Your task to perform on an android device: turn off wifi Image 0: 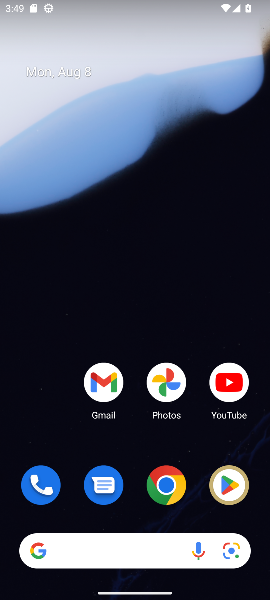
Step 0: drag from (145, 590) to (98, 317)
Your task to perform on an android device: turn off wifi Image 1: 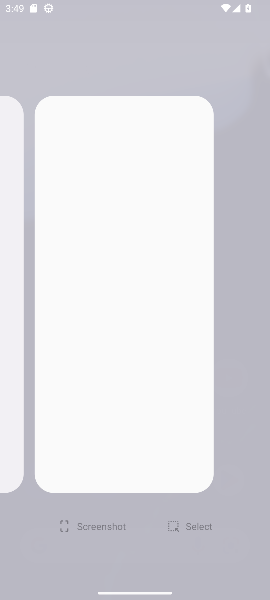
Step 1: drag from (157, 492) to (94, 205)
Your task to perform on an android device: turn off wifi Image 2: 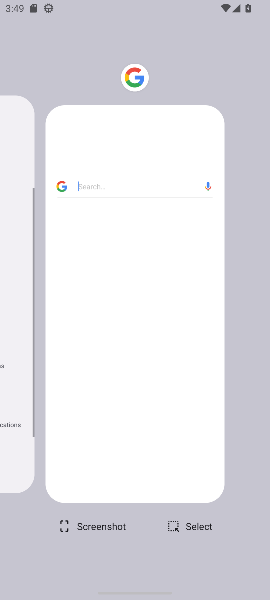
Step 2: drag from (203, 489) to (191, 357)
Your task to perform on an android device: turn off wifi Image 3: 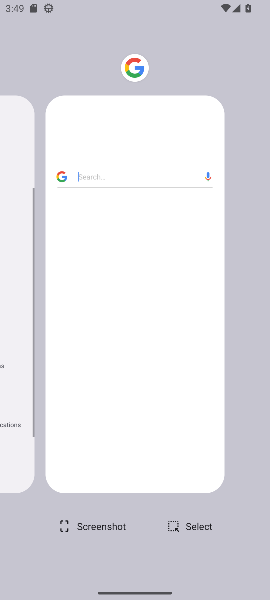
Step 3: press back button
Your task to perform on an android device: turn off wifi Image 4: 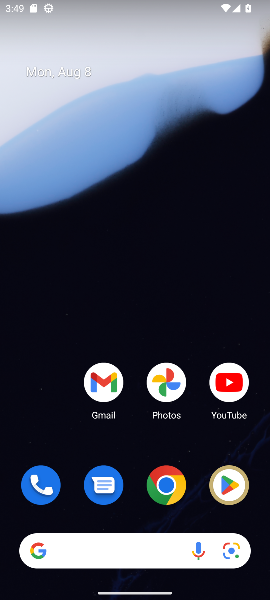
Step 4: drag from (238, 519) to (129, 161)
Your task to perform on an android device: turn off wifi Image 5: 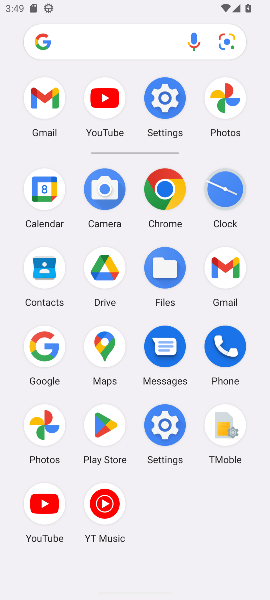
Step 5: drag from (209, 500) to (149, 116)
Your task to perform on an android device: turn off wifi Image 6: 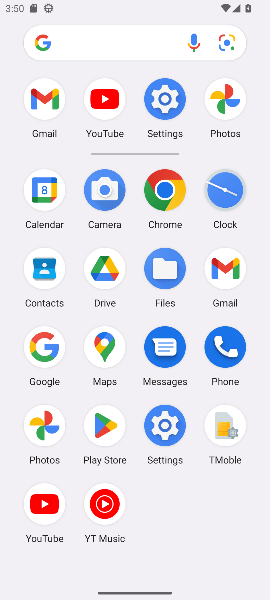
Step 6: click (148, 425)
Your task to perform on an android device: turn off wifi Image 7: 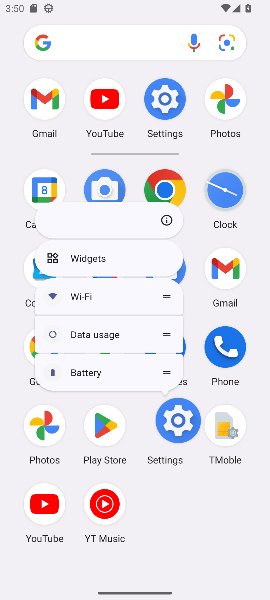
Step 7: click (161, 420)
Your task to perform on an android device: turn off wifi Image 8: 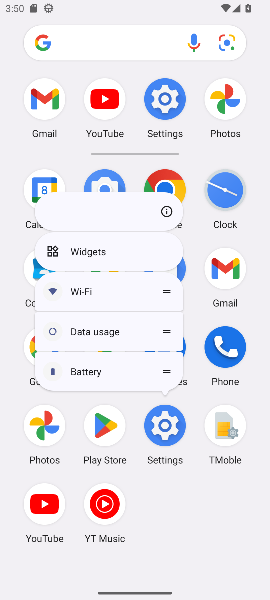
Step 8: click (143, 429)
Your task to perform on an android device: turn off wifi Image 9: 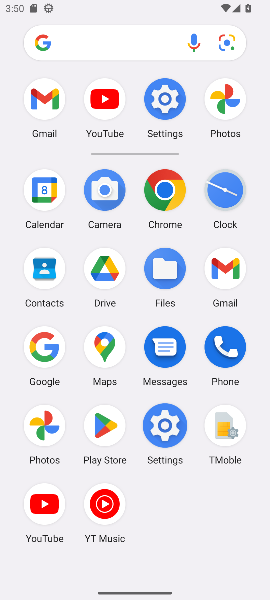
Step 9: click (152, 430)
Your task to perform on an android device: turn off wifi Image 10: 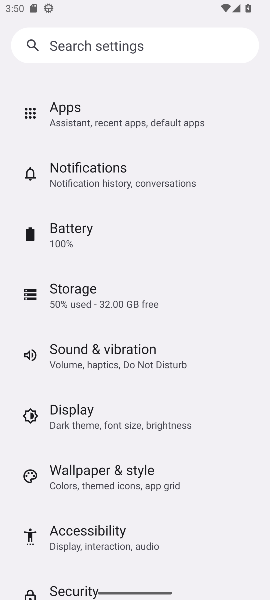
Step 10: drag from (61, 106) to (60, 444)
Your task to perform on an android device: turn off wifi Image 11: 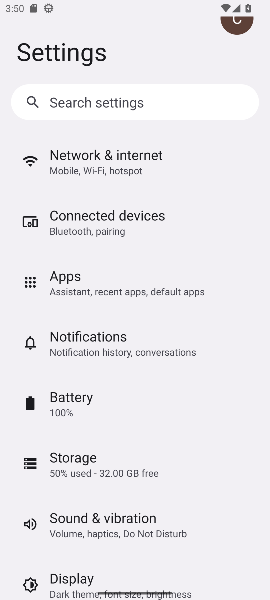
Step 11: drag from (55, 120) to (100, 497)
Your task to perform on an android device: turn off wifi Image 12: 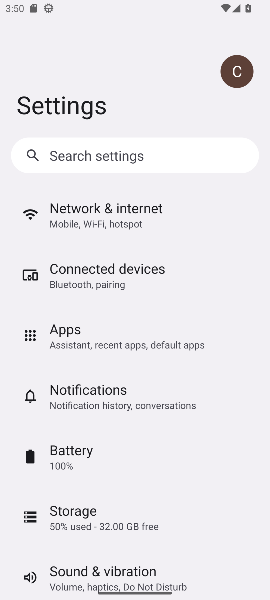
Step 12: click (92, 223)
Your task to perform on an android device: turn off wifi Image 13: 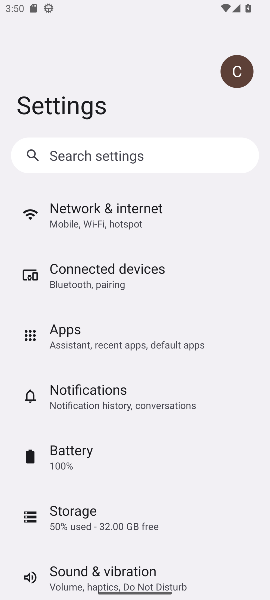
Step 13: click (92, 223)
Your task to perform on an android device: turn off wifi Image 14: 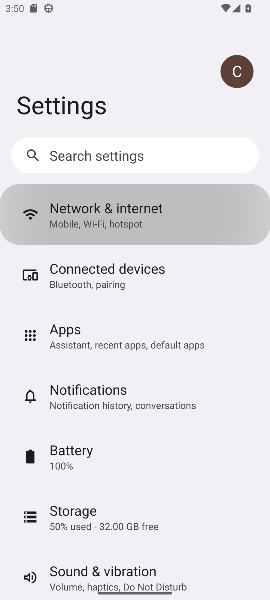
Step 14: click (95, 221)
Your task to perform on an android device: turn off wifi Image 15: 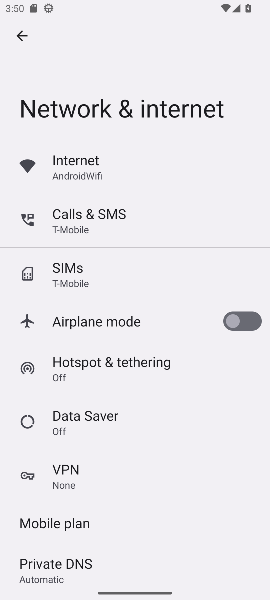
Step 15: click (102, 222)
Your task to perform on an android device: turn off wifi Image 16: 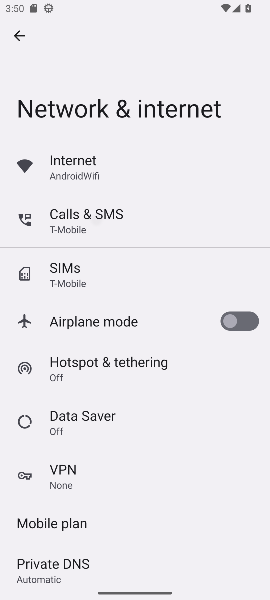
Step 16: click (109, 225)
Your task to perform on an android device: turn off wifi Image 17: 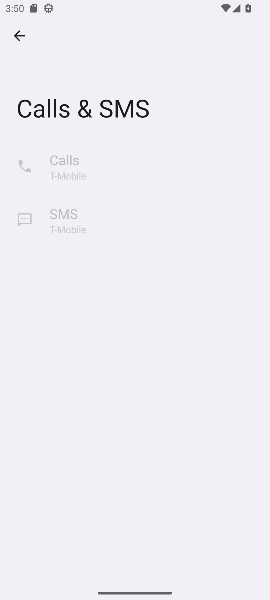
Step 17: click (15, 39)
Your task to perform on an android device: turn off wifi Image 18: 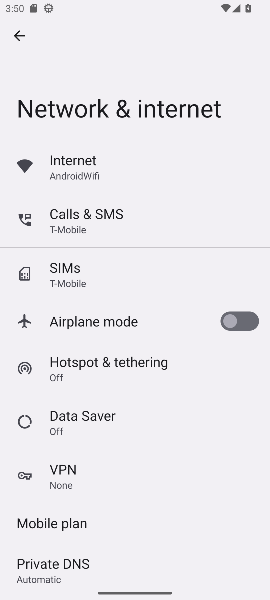
Step 18: click (78, 151)
Your task to perform on an android device: turn off wifi Image 19: 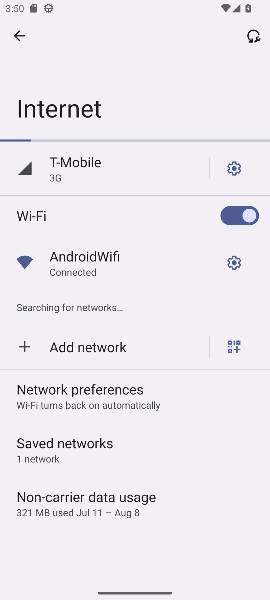
Step 19: task complete